Your task to perform on an android device: open sync settings in chrome Image 0: 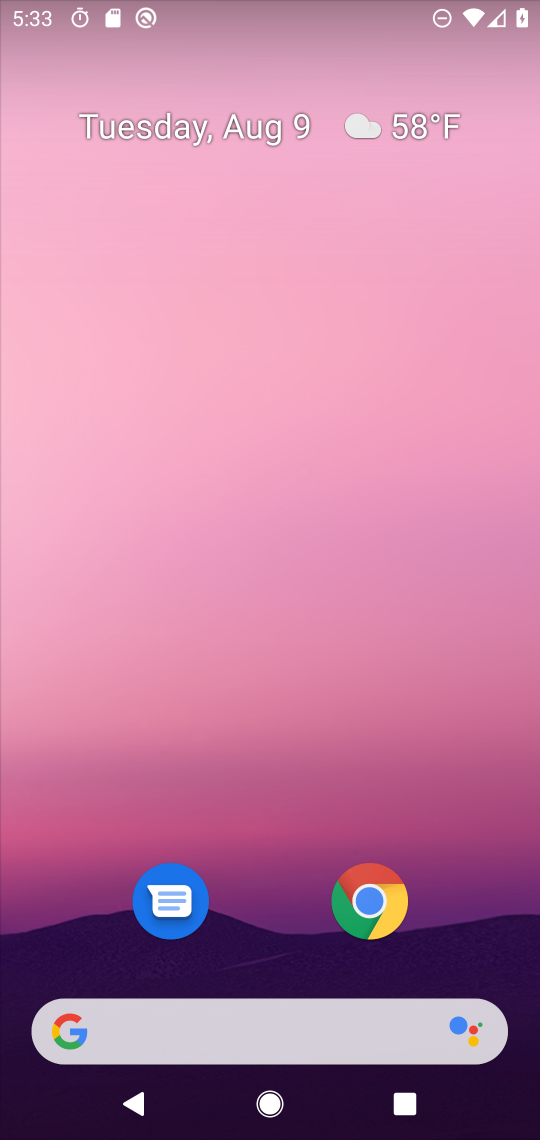
Step 0: drag from (282, 892) to (350, 348)
Your task to perform on an android device: open sync settings in chrome Image 1: 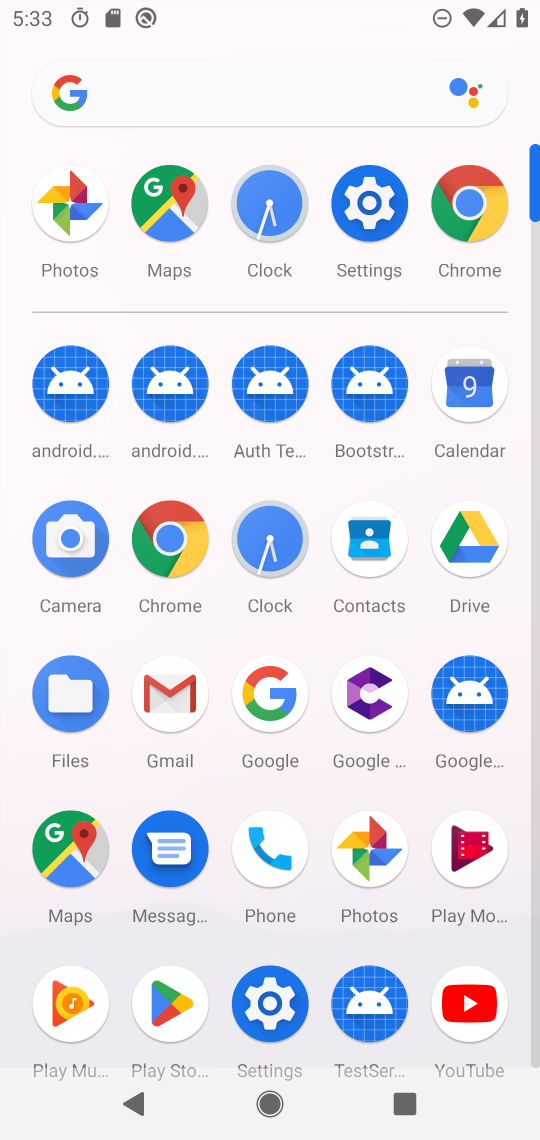
Step 1: click (157, 549)
Your task to perform on an android device: open sync settings in chrome Image 2: 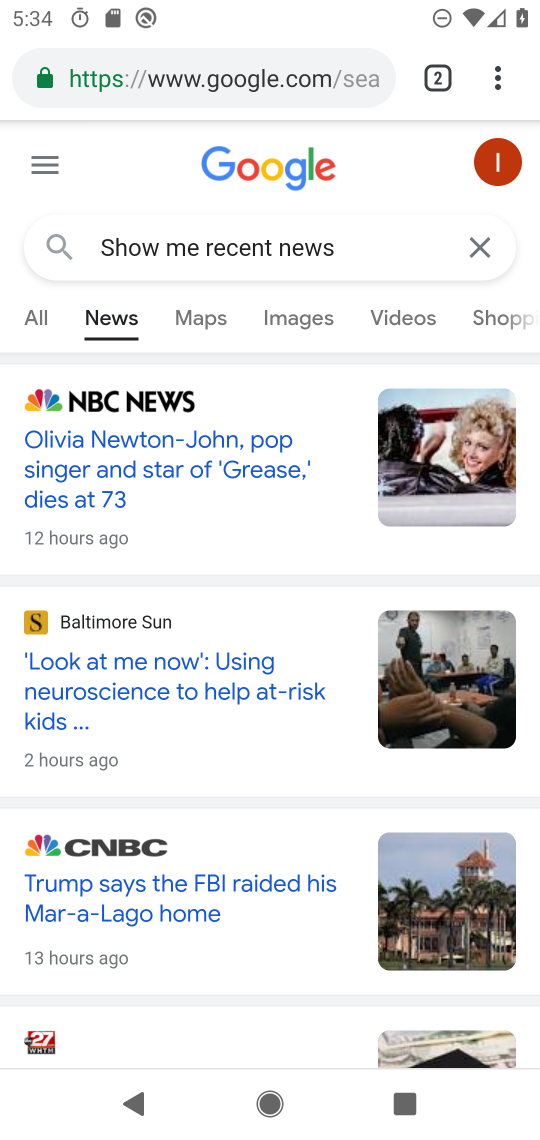
Step 2: drag from (501, 74) to (240, 967)
Your task to perform on an android device: open sync settings in chrome Image 3: 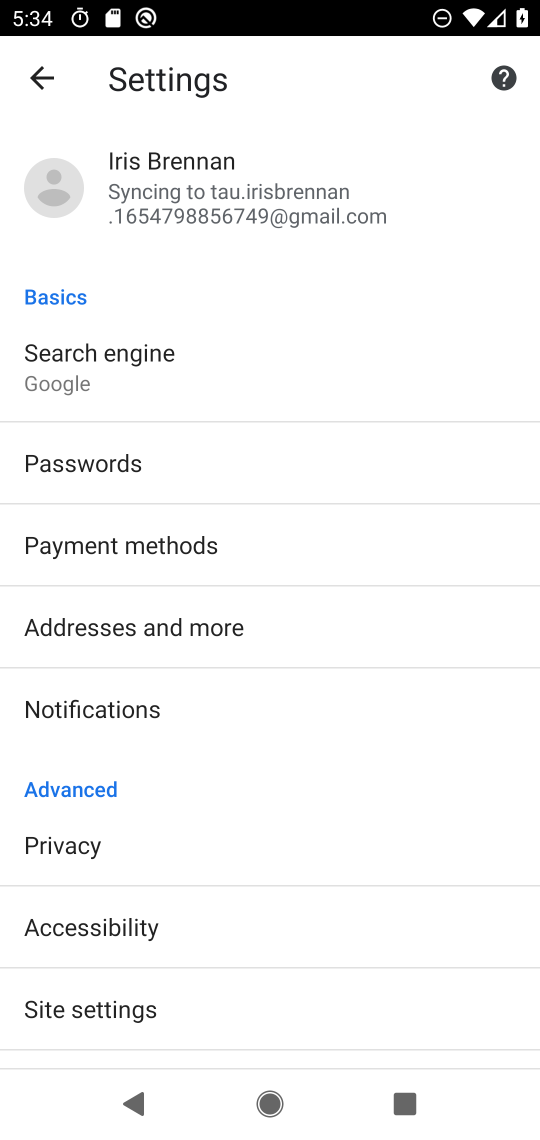
Step 3: click (130, 195)
Your task to perform on an android device: open sync settings in chrome Image 4: 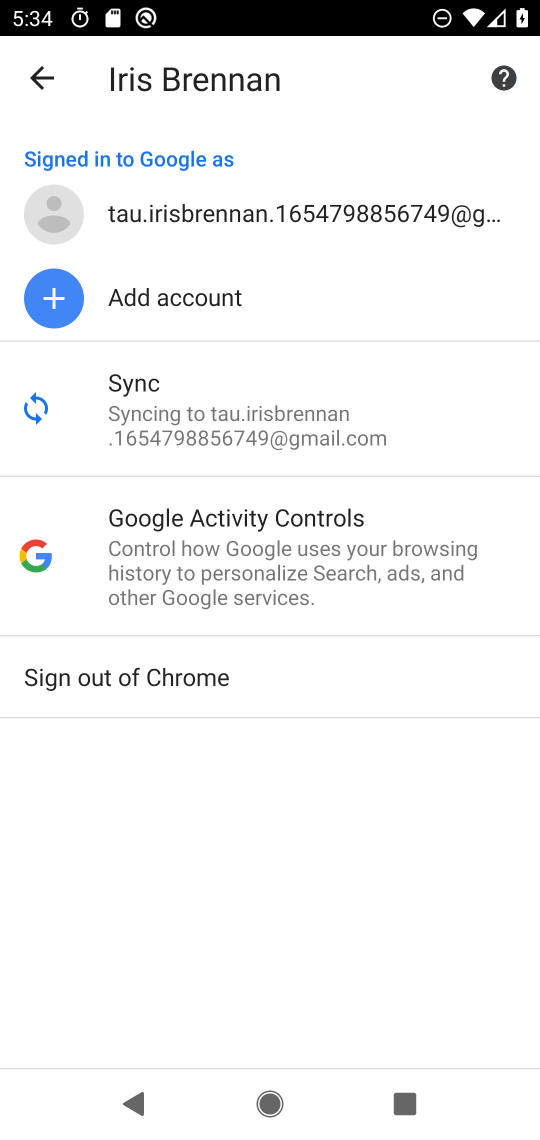
Step 4: click (142, 414)
Your task to perform on an android device: open sync settings in chrome Image 5: 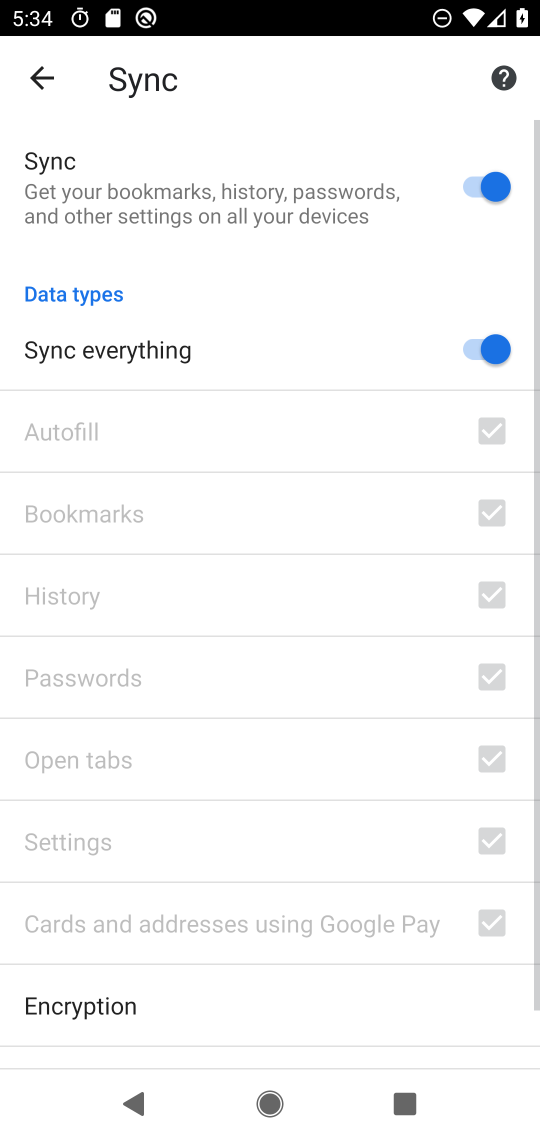
Step 5: task complete